Your task to perform on an android device: Open ESPN.com Image 0: 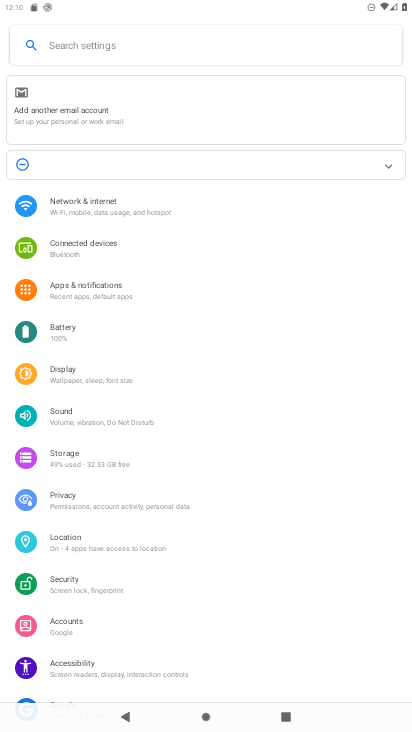
Step 0: press home button
Your task to perform on an android device: Open ESPN.com Image 1: 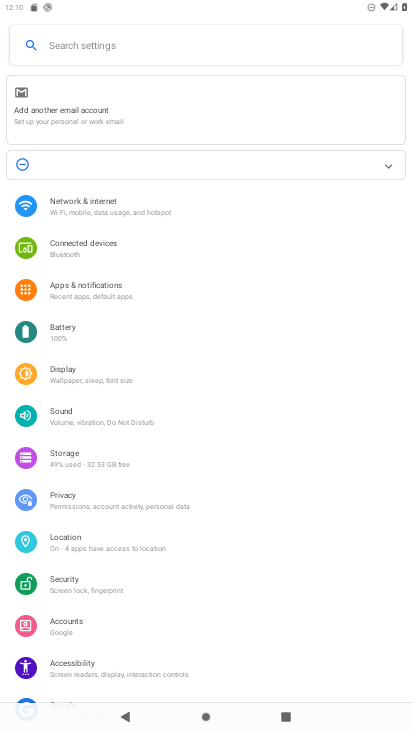
Step 1: press home button
Your task to perform on an android device: Open ESPN.com Image 2: 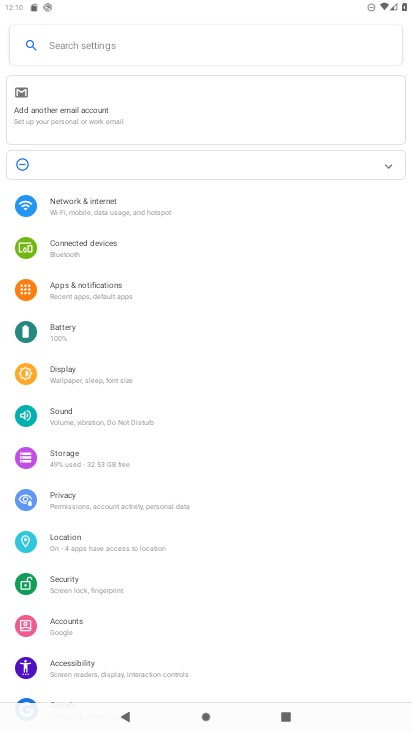
Step 2: drag from (172, 601) to (227, 55)
Your task to perform on an android device: Open ESPN.com Image 3: 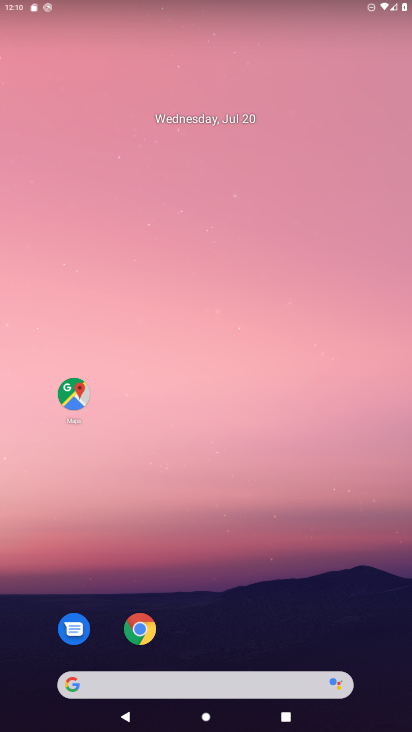
Step 3: drag from (171, 618) to (247, 97)
Your task to perform on an android device: Open ESPN.com Image 4: 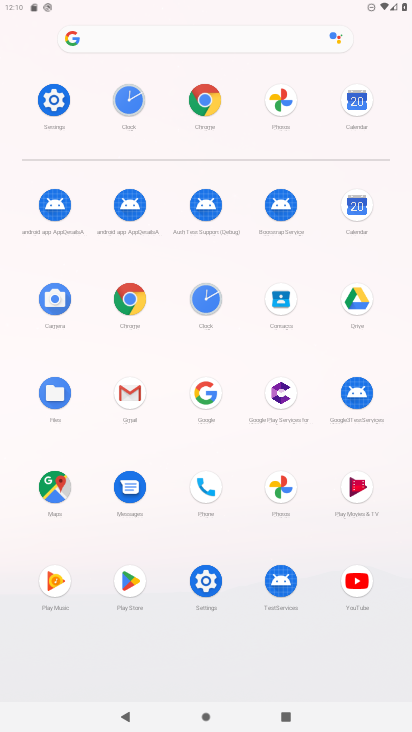
Step 4: click (154, 38)
Your task to perform on an android device: Open ESPN.com Image 5: 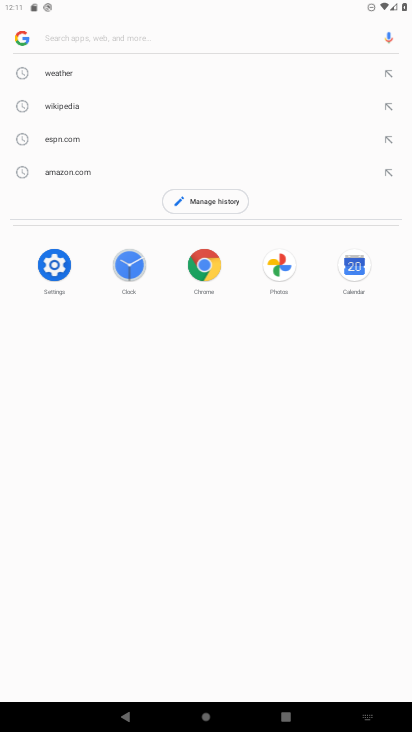
Step 5: type "espn.com"
Your task to perform on an android device: Open ESPN.com Image 6: 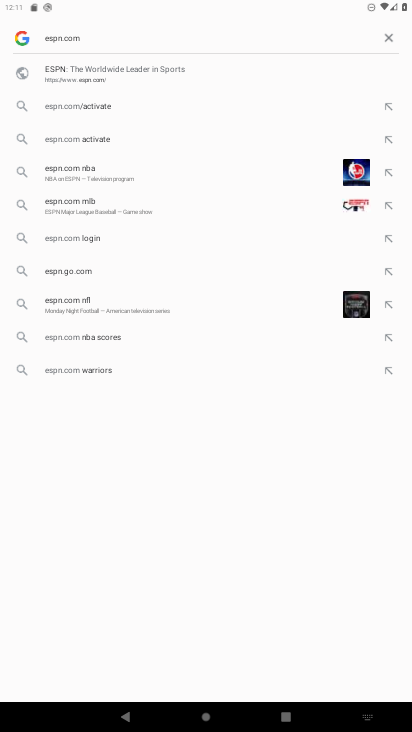
Step 6: click (87, 73)
Your task to perform on an android device: Open ESPN.com Image 7: 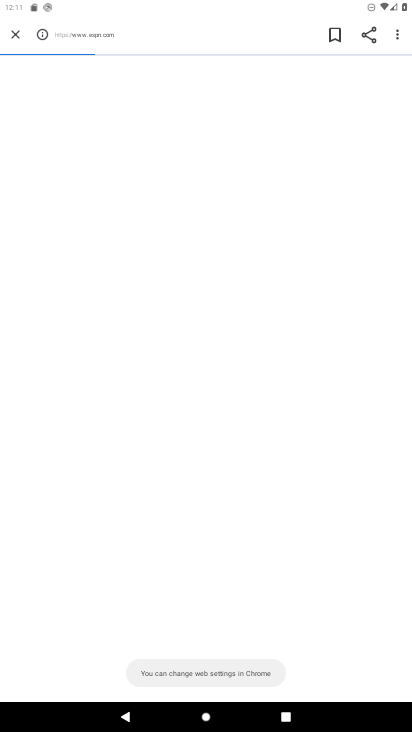
Step 7: task complete